Your task to perform on an android device: Go to Amazon Image 0: 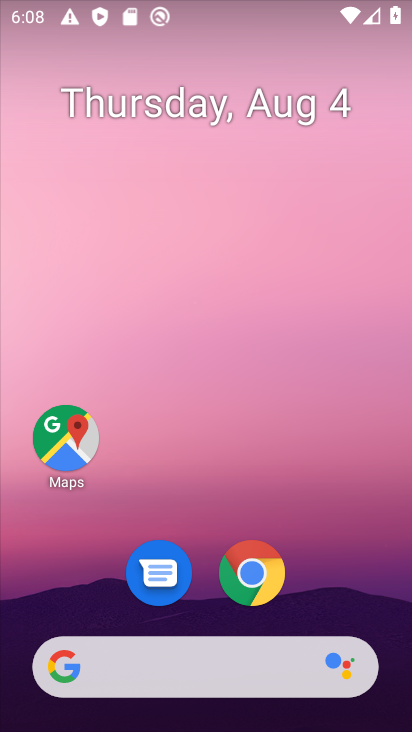
Step 0: press home button
Your task to perform on an android device: Go to Amazon Image 1: 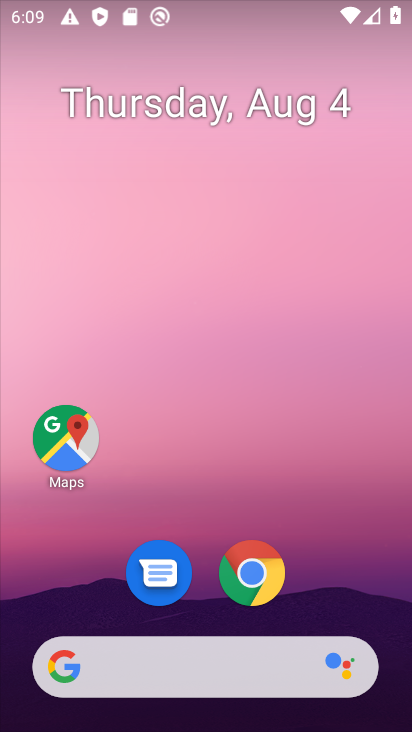
Step 1: click (65, 667)
Your task to perform on an android device: Go to Amazon Image 2: 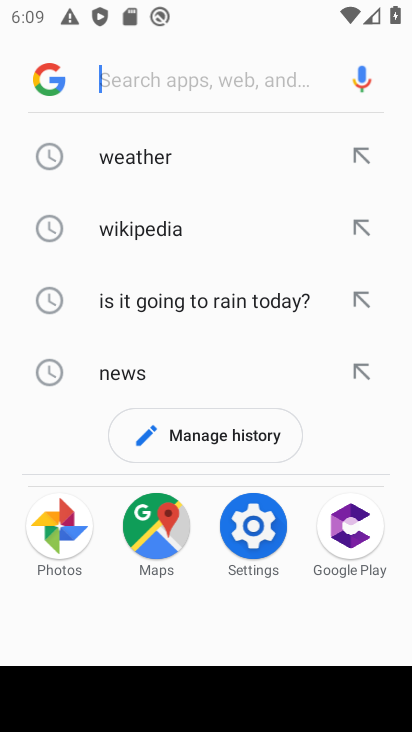
Step 2: press enter
Your task to perform on an android device: Go to Amazon Image 3: 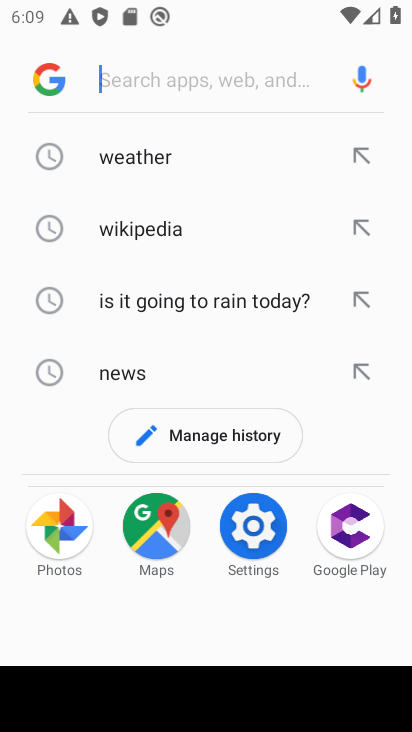
Step 3: type "Amazon"
Your task to perform on an android device: Go to Amazon Image 4: 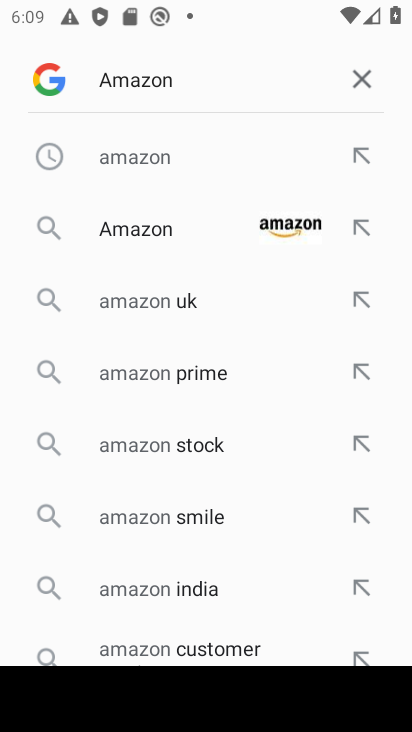
Step 4: click (163, 232)
Your task to perform on an android device: Go to Amazon Image 5: 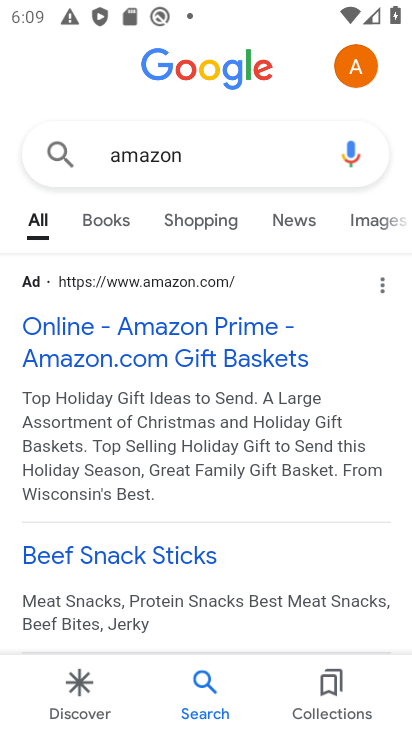
Step 5: click (160, 325)
Your task to perform on an android device: Go to Amazon Image 6: 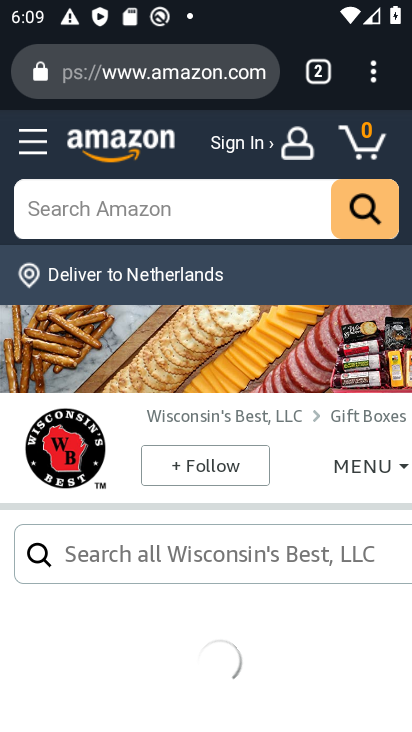
Step 6: task complete